Your task to perform on an android device: open app "File Manager" (install if not already installed) Image 0: 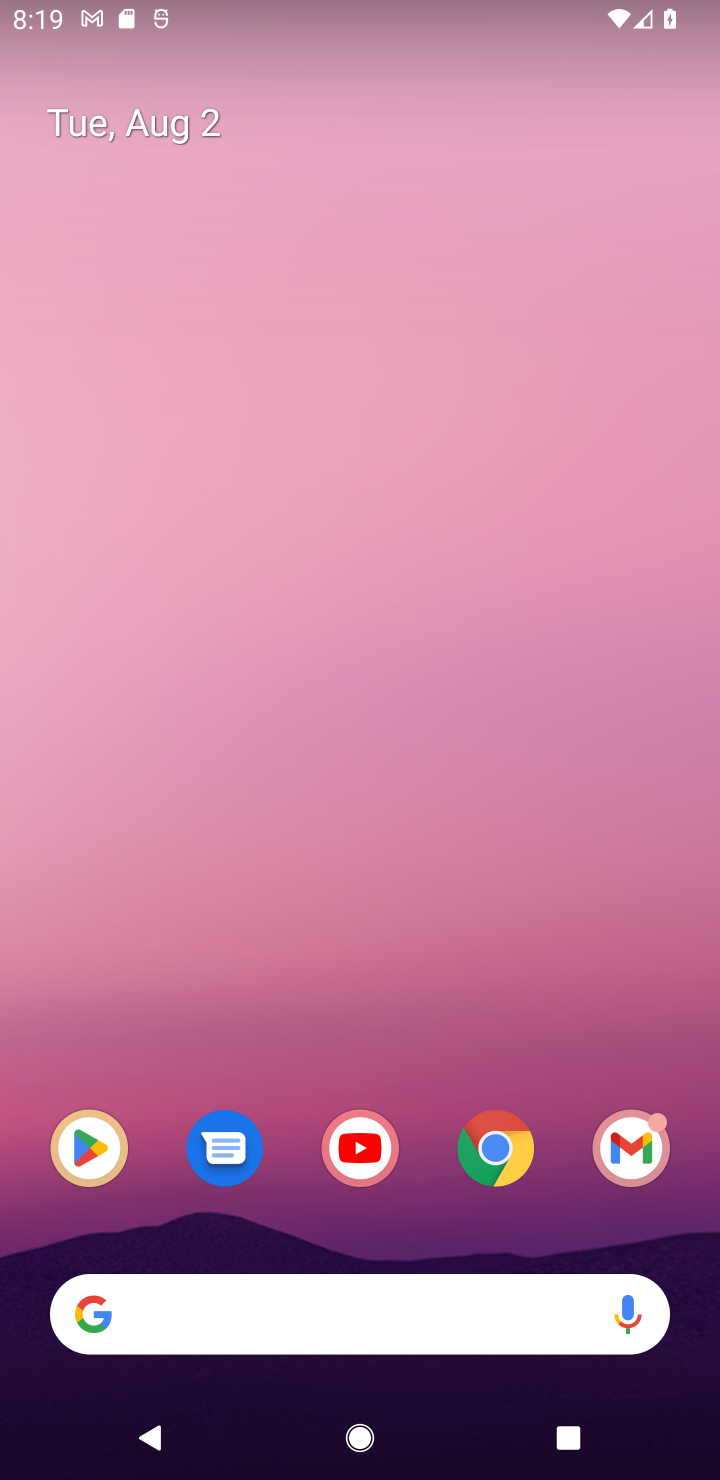
Step 0: drag from (698, 1225) to (396, 18)
Your task to perform on an android device: open app "File Manager" (install if not already installed) Image 1: 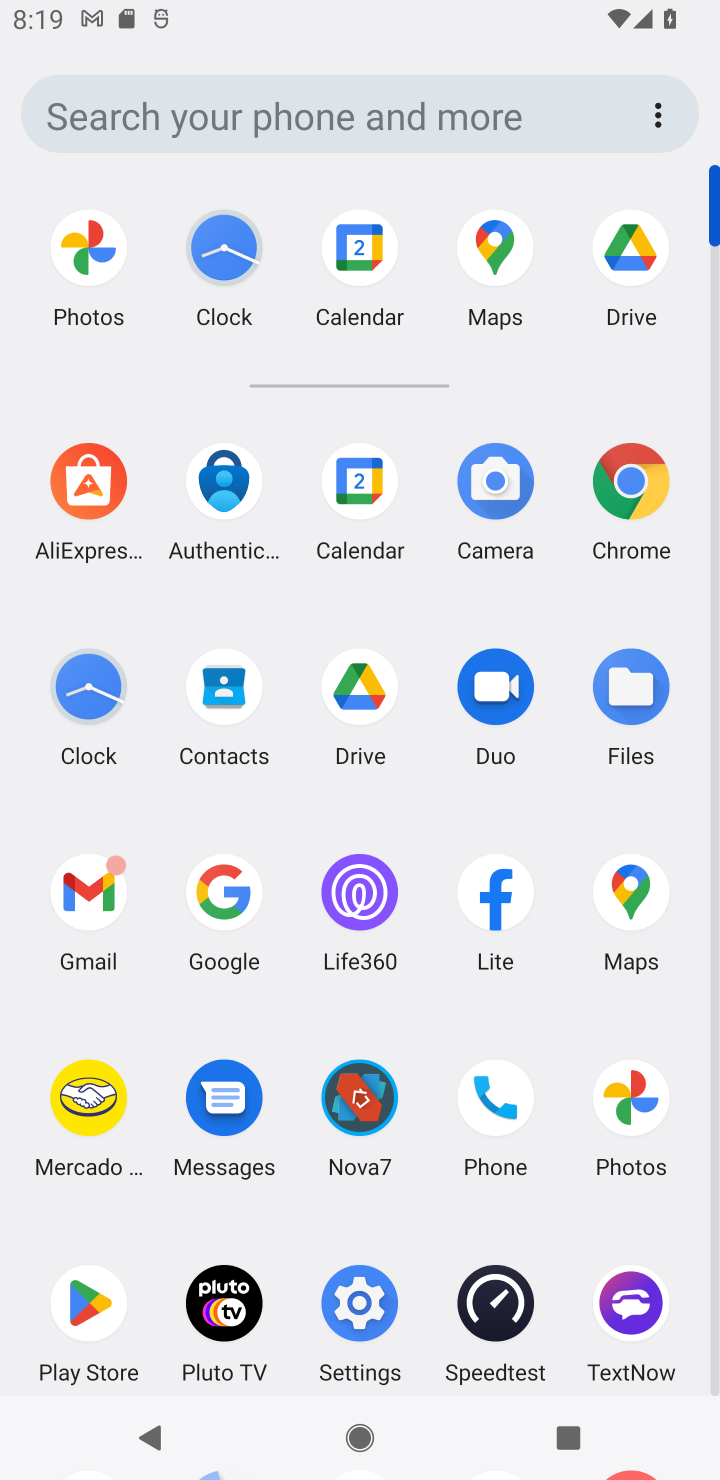
Step 1: click (88, 1318)
Your task to perform on an android device: open app "File Manager" (install if not already installed) Image 2: 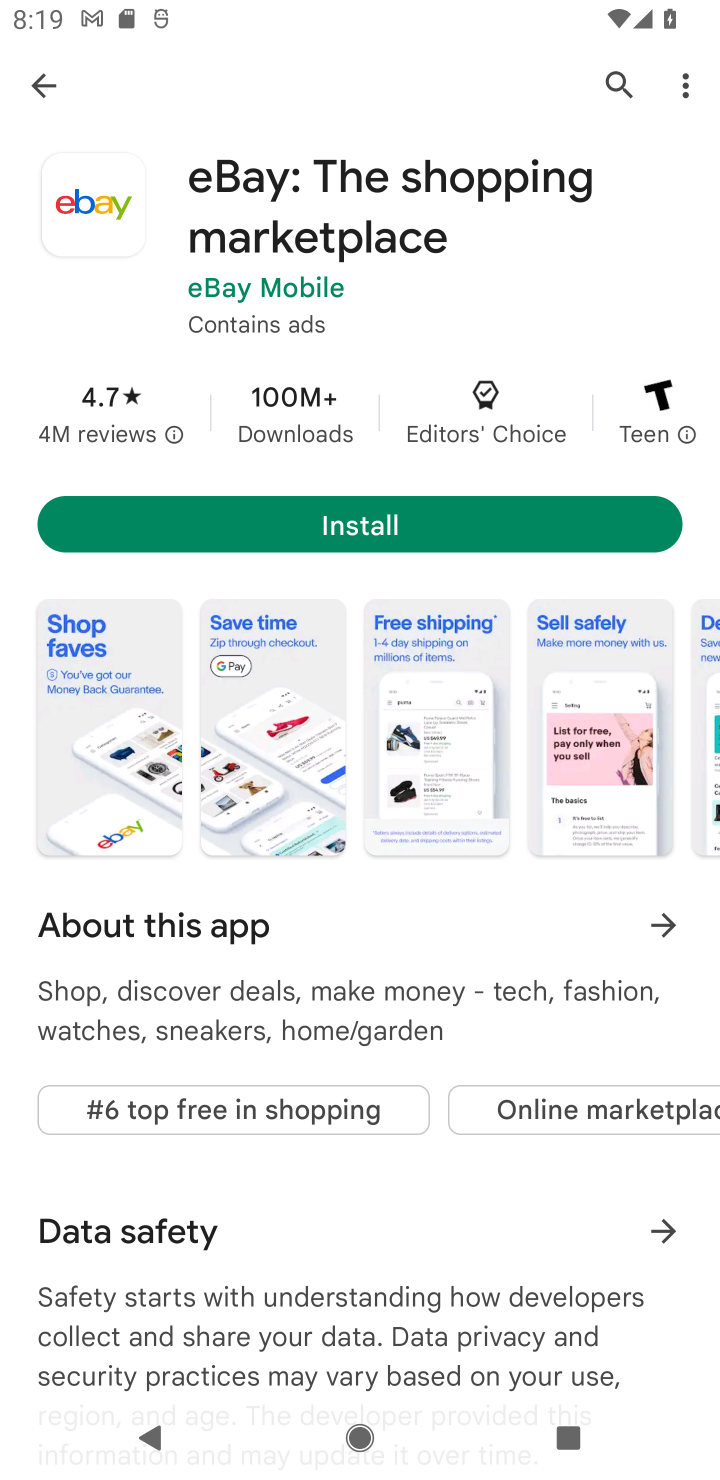
Step 2: press back button
Your task to perform on an android device: open app "File Manager" (install if not already installed) Image 3: 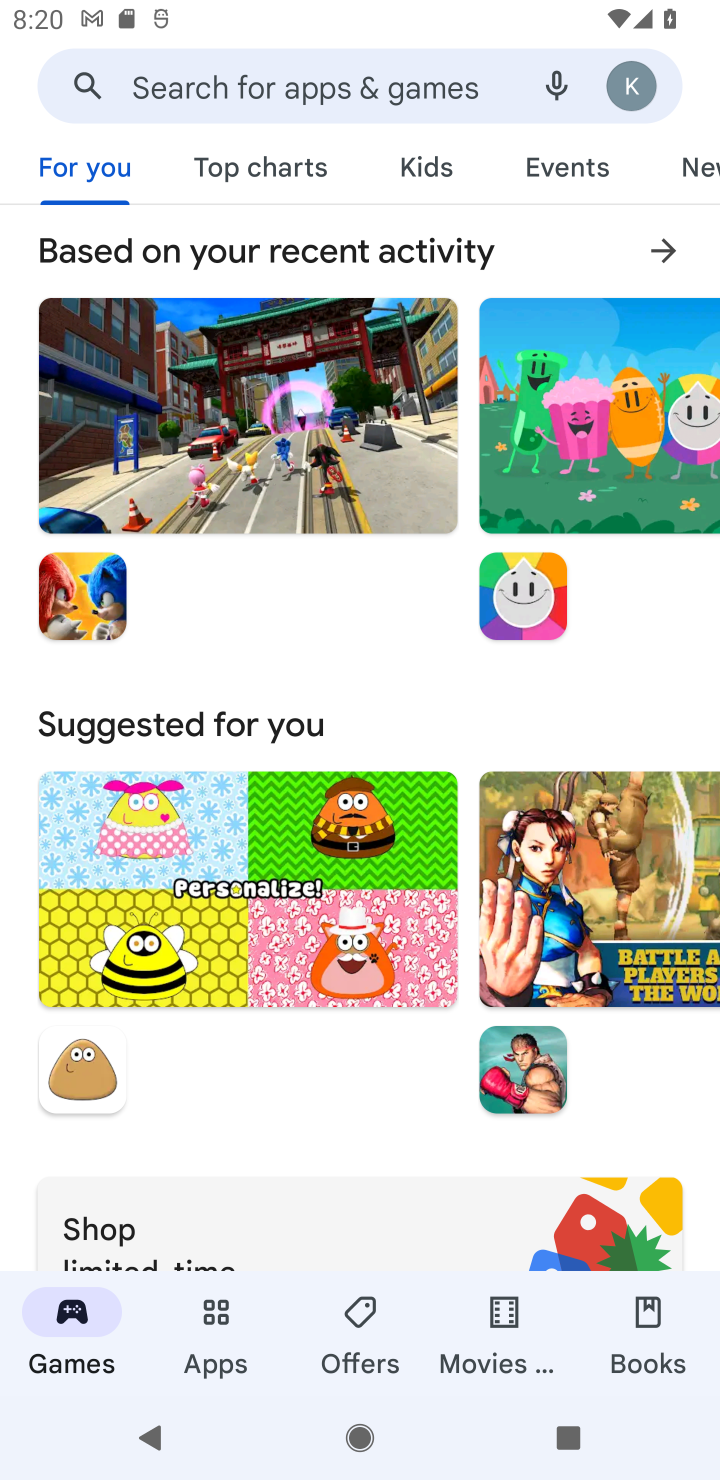
Step 3: type "File Manager"
Your task to perform on an android device: open app "File Manager" (install if not already installed) Image 4: 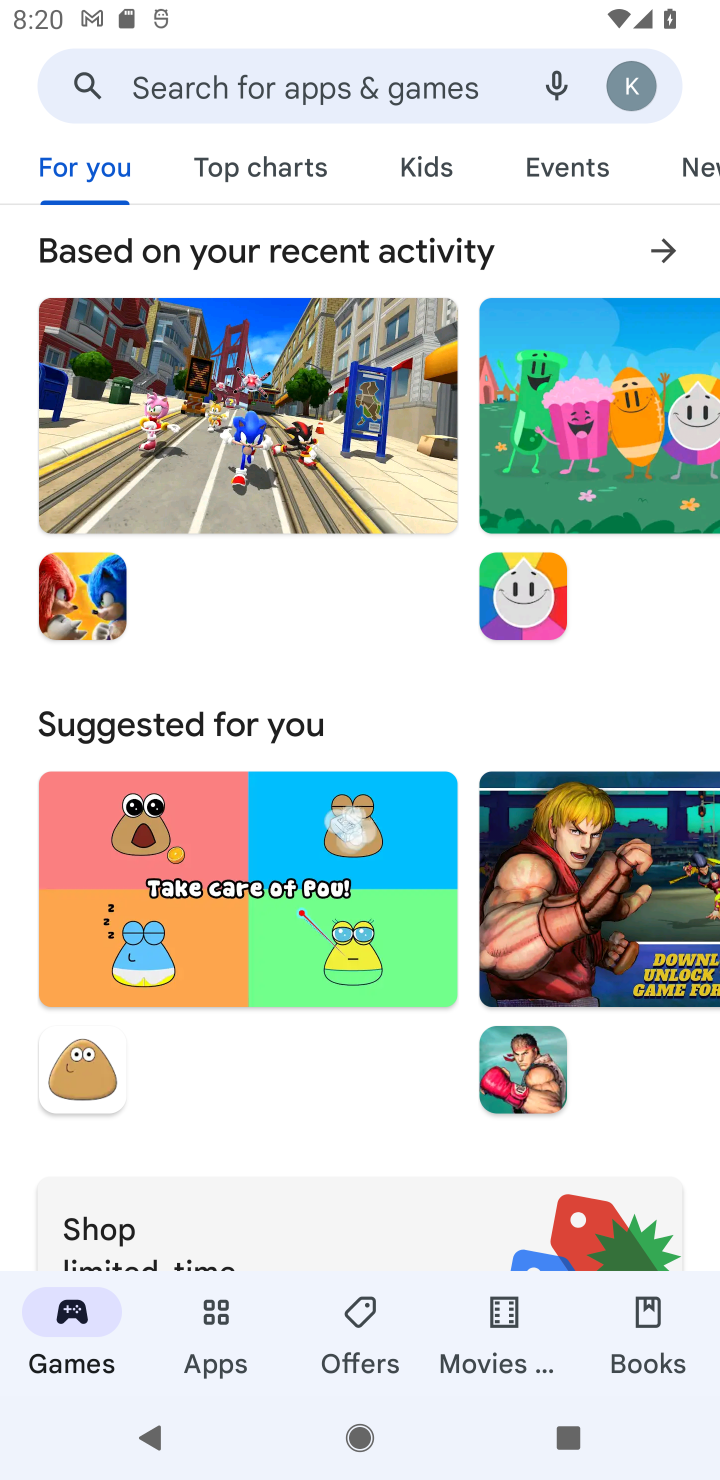
Step 4: click (209, 75)
Your task to perform on an android device: open app "File Manager" (install if not already installed) Image 5: 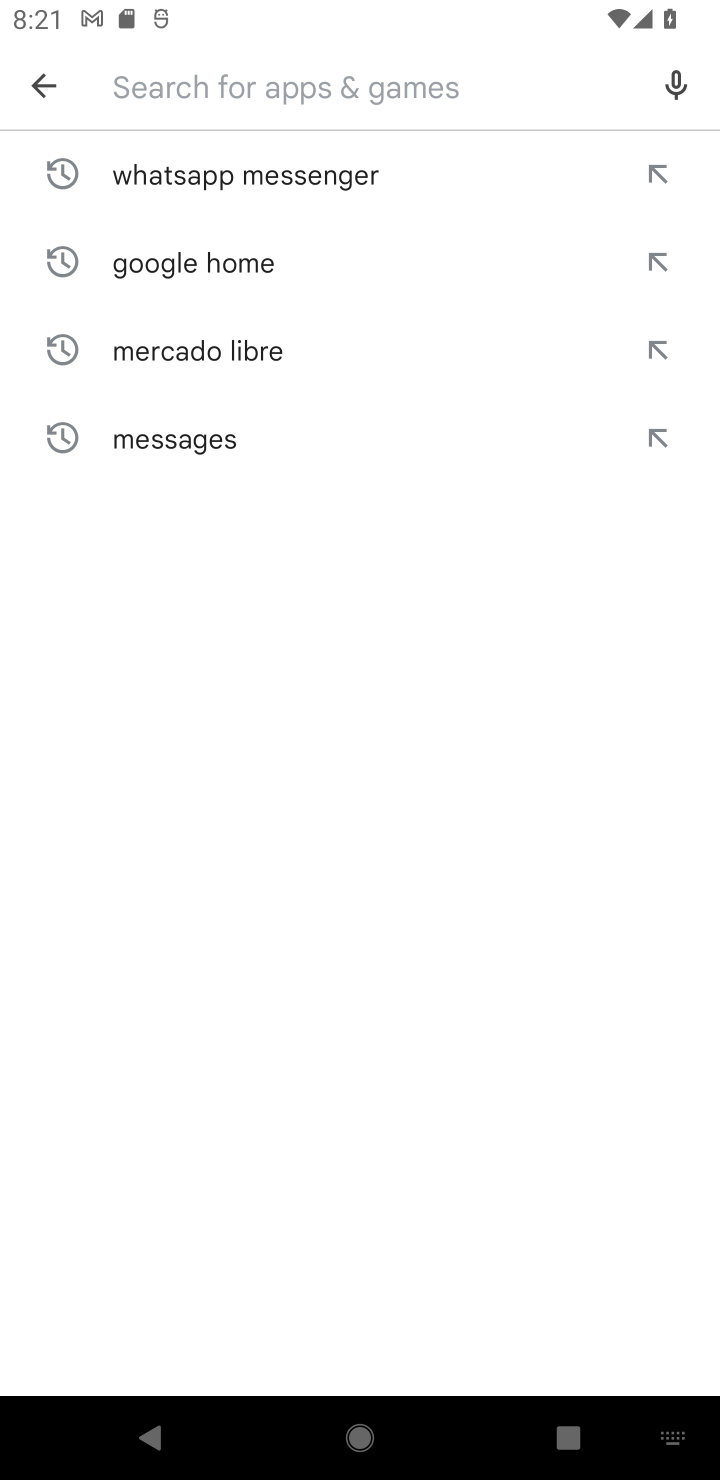
Step 5: type "File Manager"
Your task to perform on an android device: open app "File Manager" (install if not already installed) Image 6: 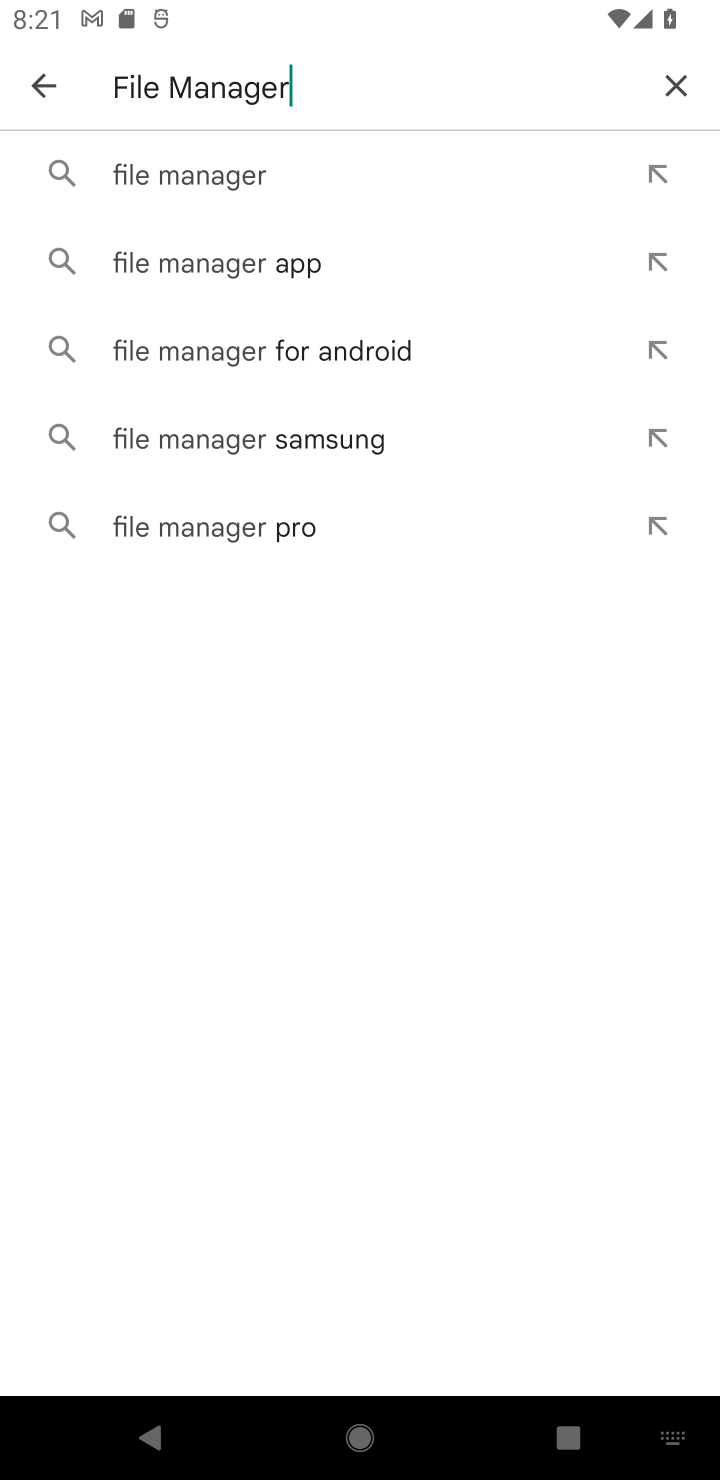
Step 6: click (288, 178)
Your task to perform on an android device: open app "File Manager" (install if not already installed) Image 7: 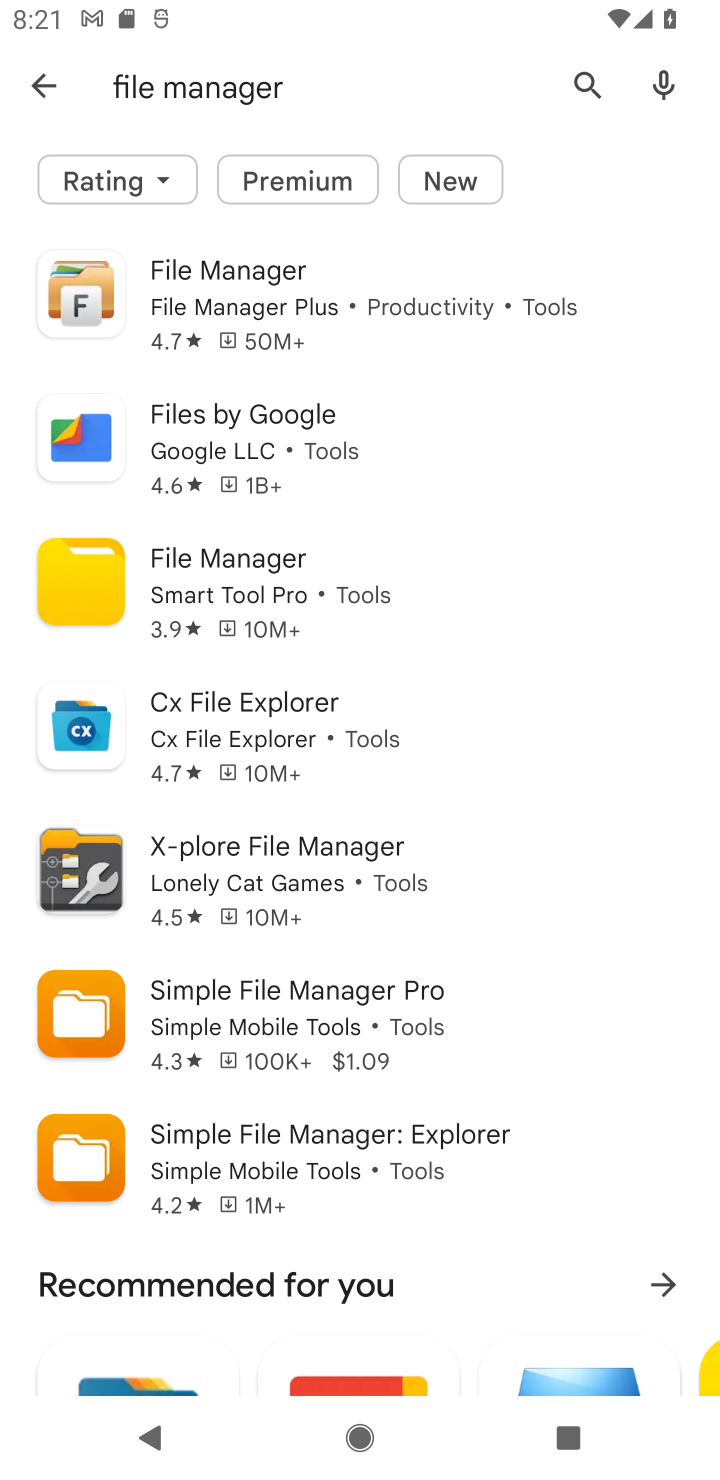
Step 7: click (322, 336)
Your task to perform on an android device: open app "File Manager" (install if not already installed) Image 8: 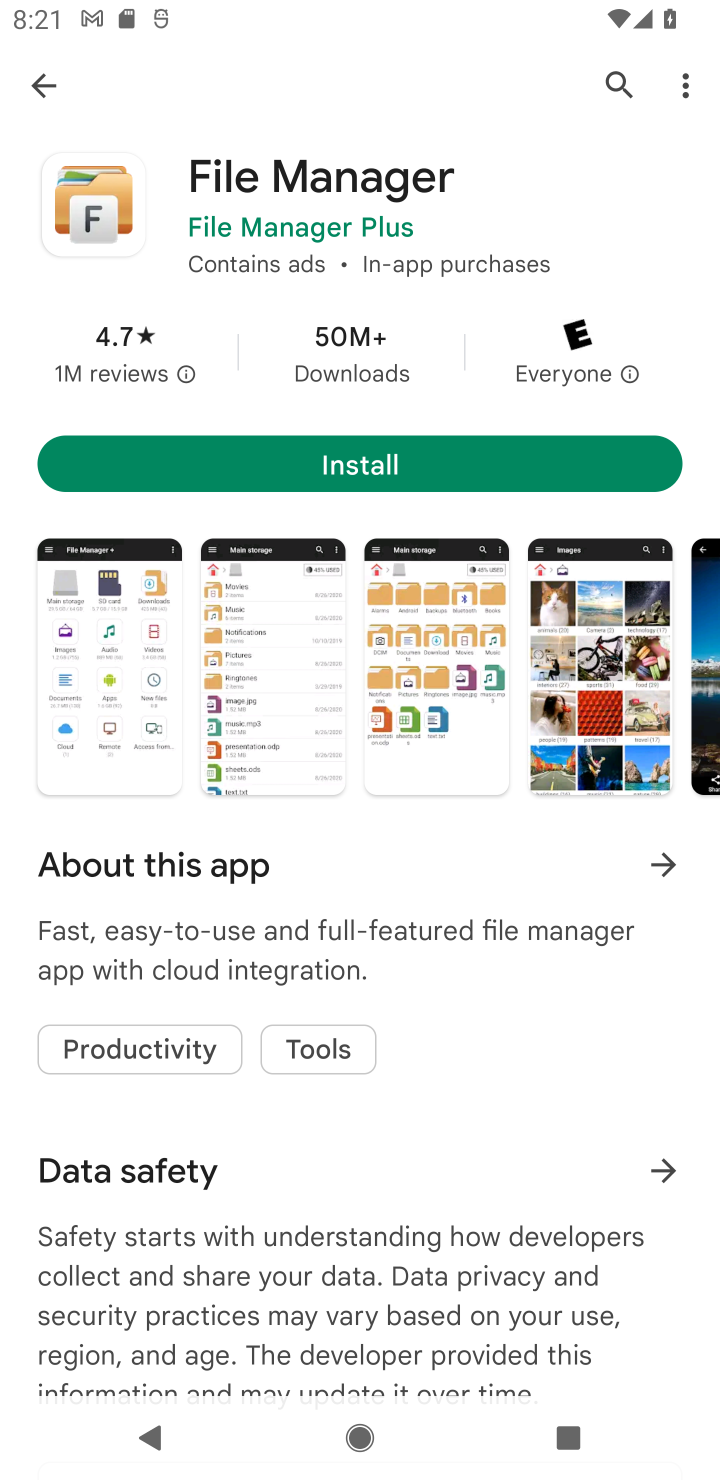
Step 8: task complete